Your task to perform on an android device: Show me recent news Image 0: 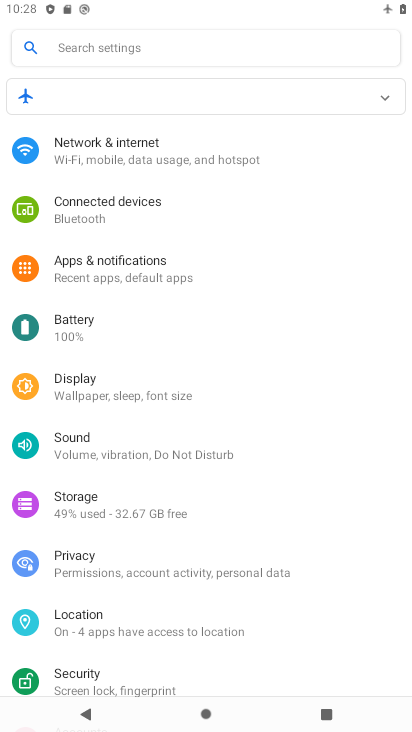
Step 0: press home button
Your task to perform on an android device: Show me recent news Image 1: 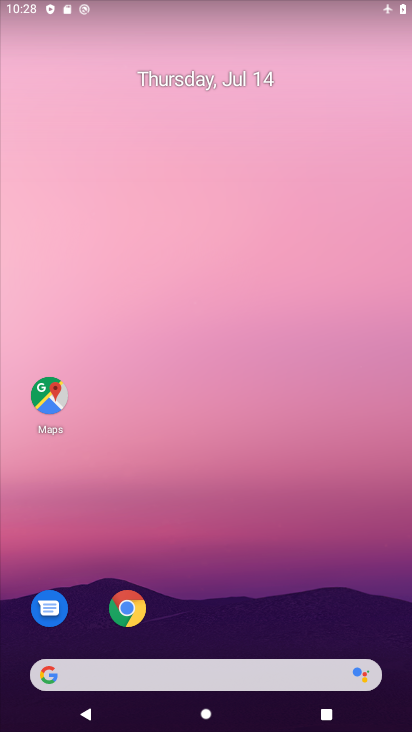
Step 1: click (209, 678)
Your task to perform on an android device: Show me recent news Image 2: 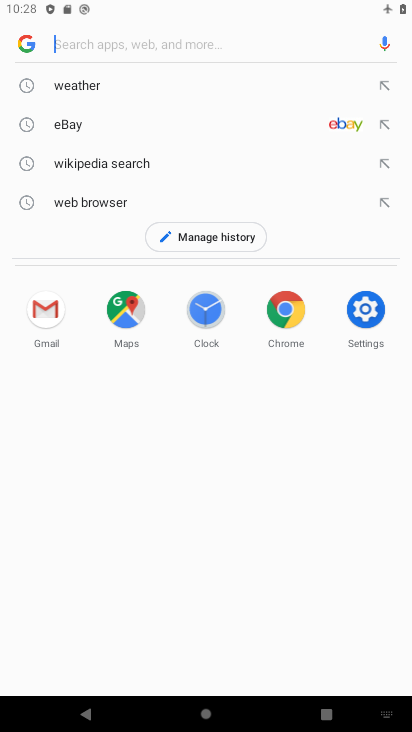
Step 2: type "recent news"
Your task to perform on an android device: Show me recent news Image 3: 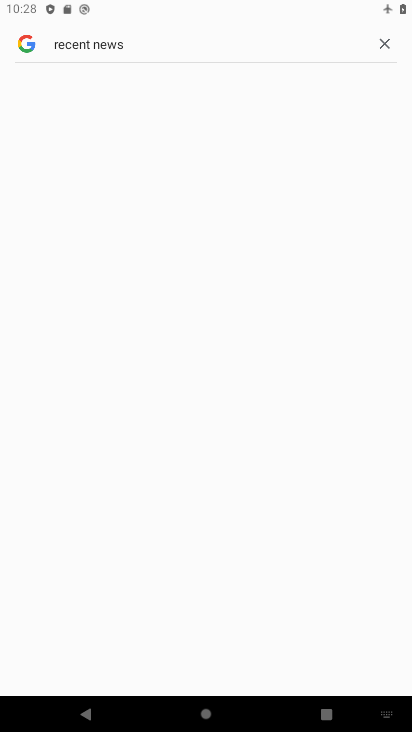
Step 3: task complete